Your task to perform on an android device: turn off sleep mode Image 0: 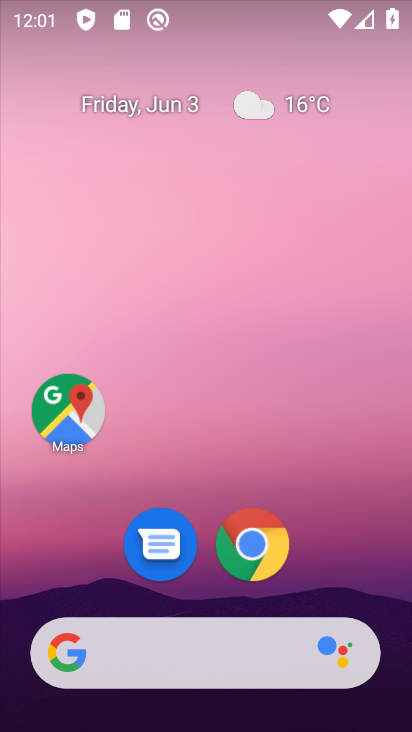
Step 0: drag from (316, 522) to (314, 119)
Your task to perform on an android device: turn off sleep mode Image 1: 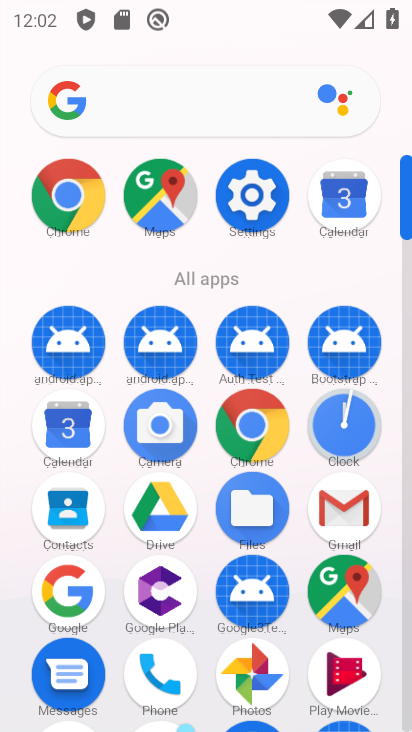
Step 1: click (243, 176)
Your task to perform on an android device: turn off sleep mode Image 2: 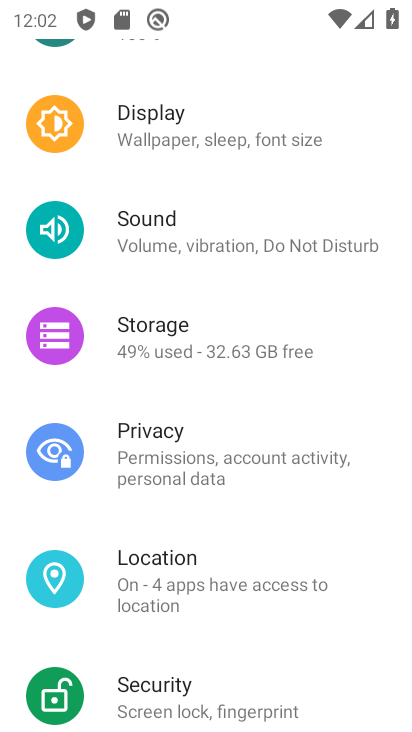
Step 2: drag from (233, 206) to (214, 600)
Your task to perform on an android device: turn off sleep mode Image 3: 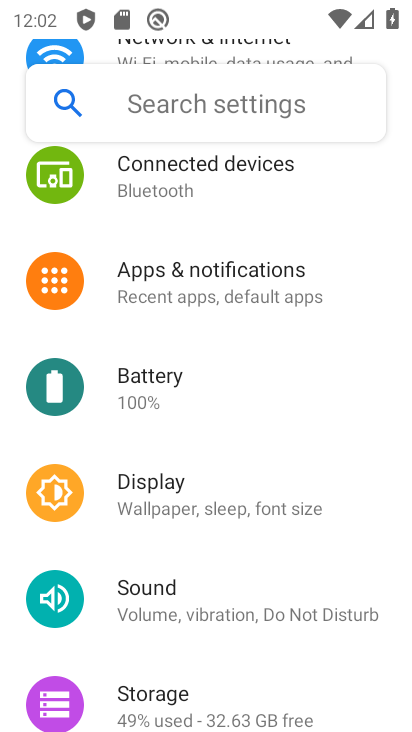
Step 3: click (154, 102)
Your task to perform on an android device: turn off sleep mode Image 4: 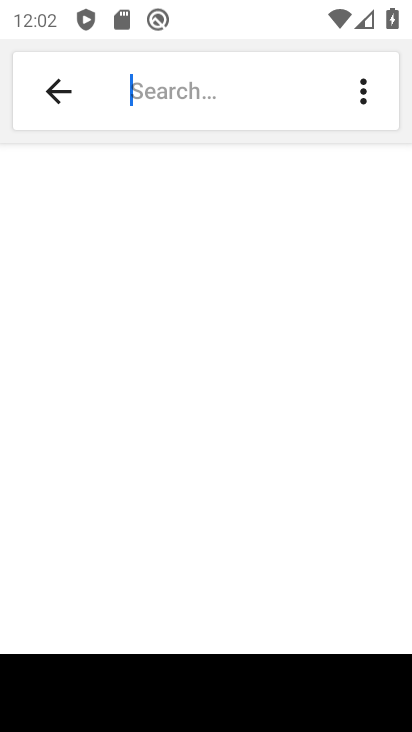
Step 4: type "sleep mode"
Your task to perform on an android device: turn off sleep mode Image 5: 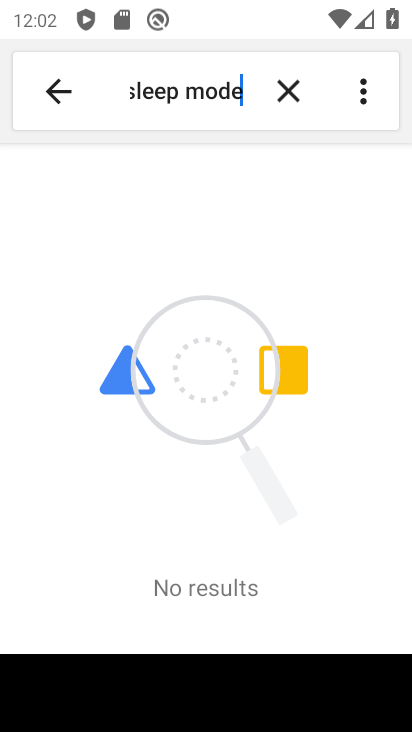
Step 5: task complete